Your task to perform on an android device: stop showing notifications on the lock screen Image 0: 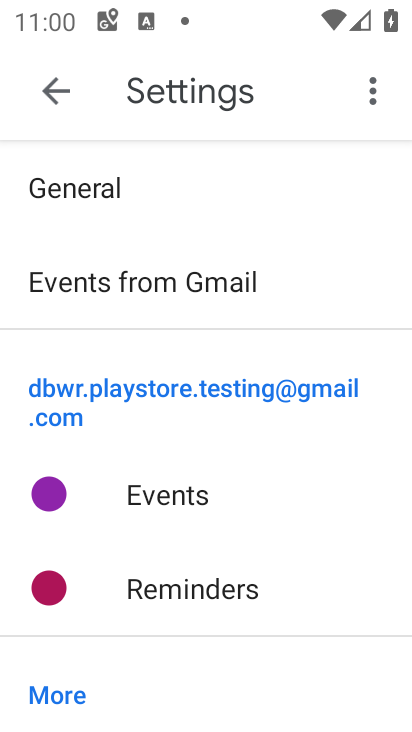
Step 0: press home button
Your task to perform on an android device: stop showing notifications on the lock screen Image 1: 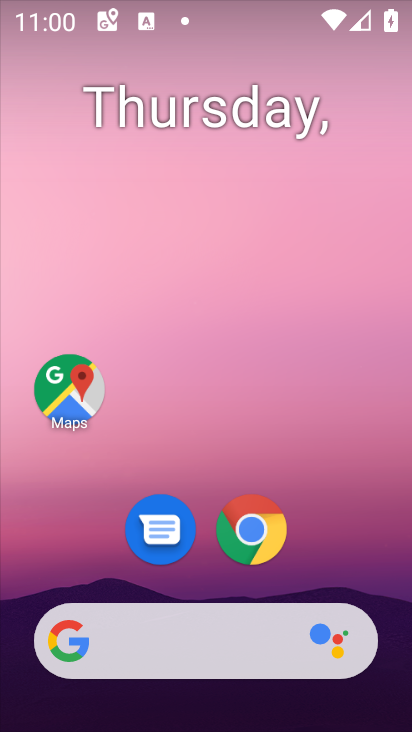
Step 1: drag from (197, 658) to (234, 131)
Your task to perform on an android device: stop showing notifications on the lock screen Image 2: 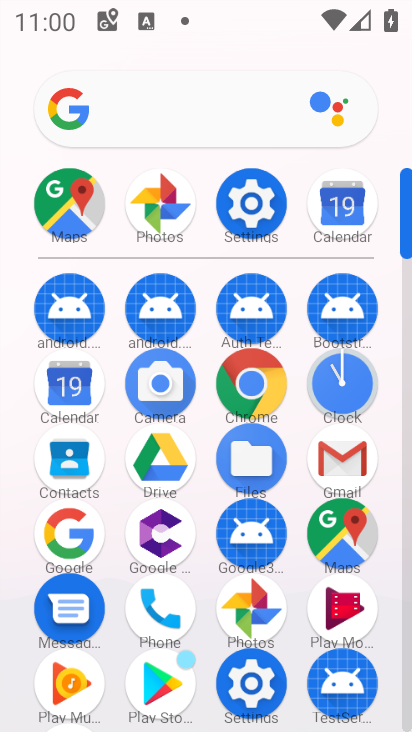
Step 2: click (265, 219)
Your task to perform on an android device: stop showing notifications on the lock screen Image 3: 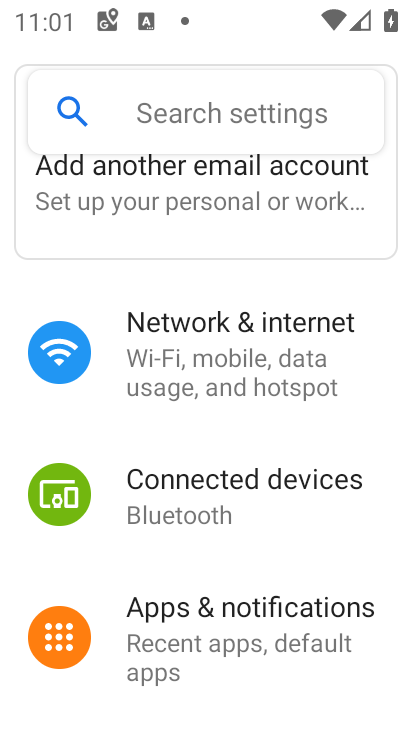
Step 3: click (223, 639)
Your task to perform on an android device: stop showing notifications on the lock screen Image 4: 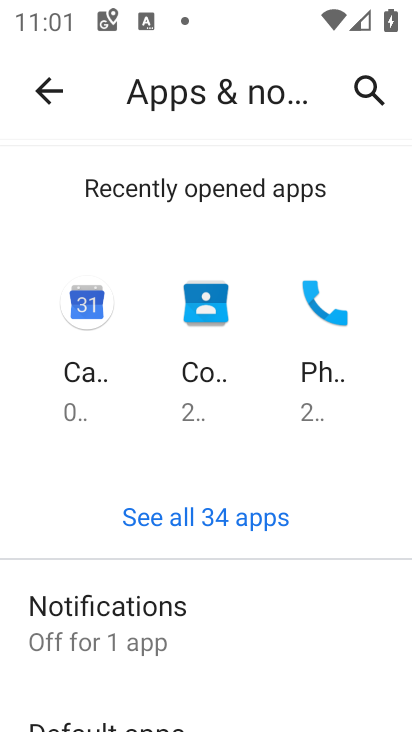
Step 4: drag from (218, 515) to (229, 157)
Your task to perform on an android device: stop showing notifications on the lock screen Image 5: 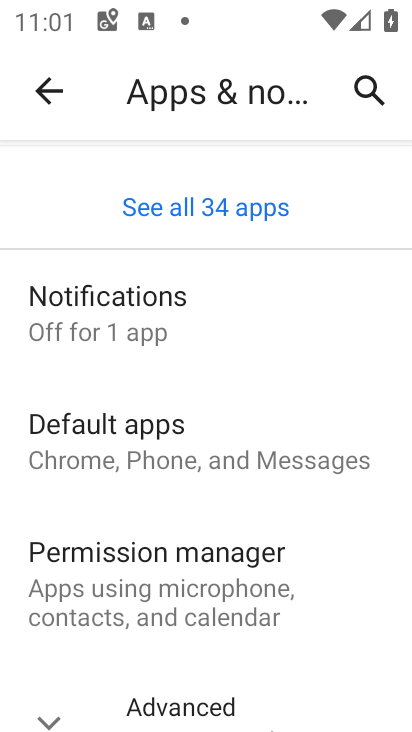
Step 5: drag from (249, 558) to (260, 434)
Your task to perform on an android device: stop showing notifications on the lock screen Image 6: 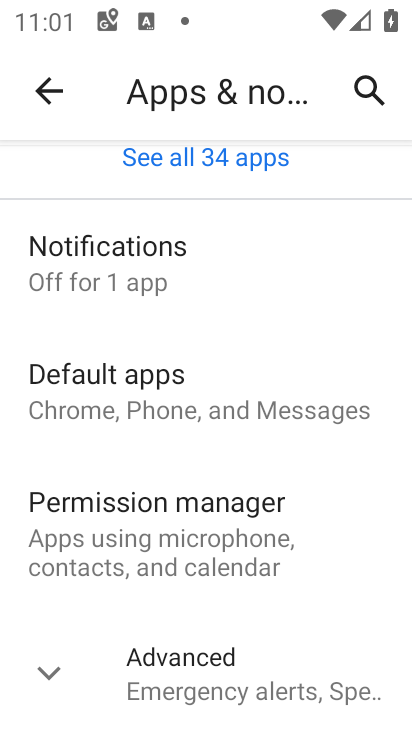
Step 6: click (206, 267)
Your task to perform on an android device: stop showing notifications on the lock screen Image 7: 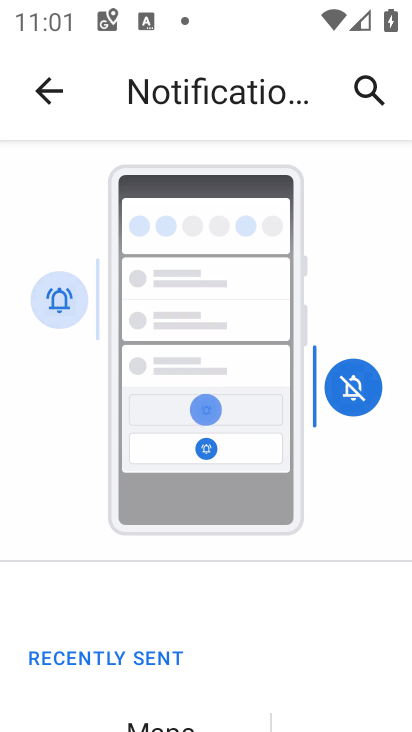
Step 7: drag from (203, 568) to (234, 57)
Your task to perform on an android device: stop showing notifications on the lock screen Image 8: 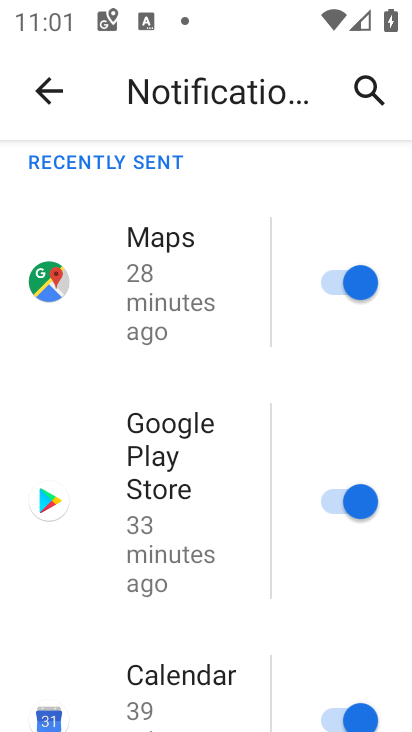
Step 8: drag from (172, 574) to (176, 81)
Your task to perform on an android device: stop showing notifications on the lock screen Image 9: 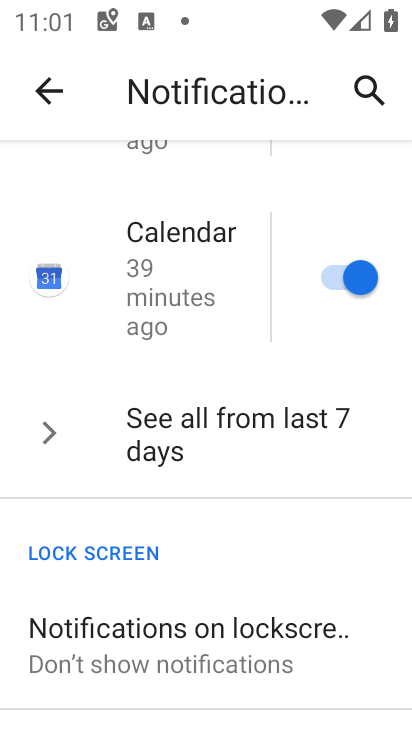
Step 9: drag from (228, 610) to (228, 391)
Your task to perform on an android device: stop showing notifications on the lock screen Image 10: 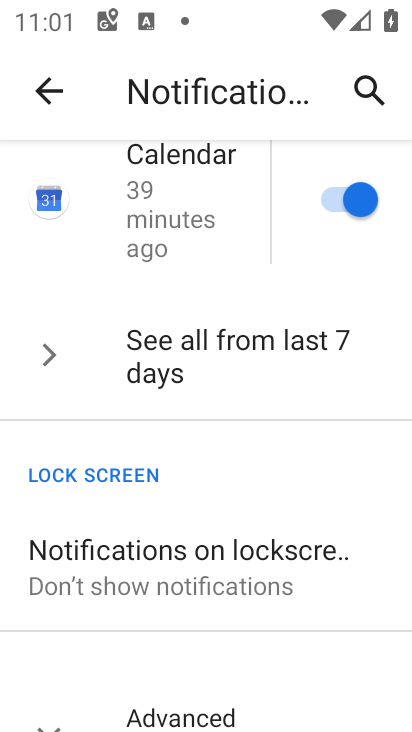
Step 10: click (197, 575)
Your task to perform on an android device: stop showing notifications on the lock screen Image 11: 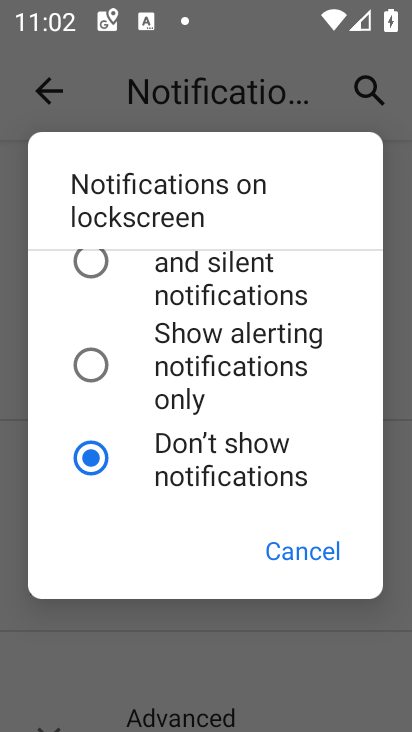
Step 11: task complete